Your task to perform on an android device: check battery use Image 0: 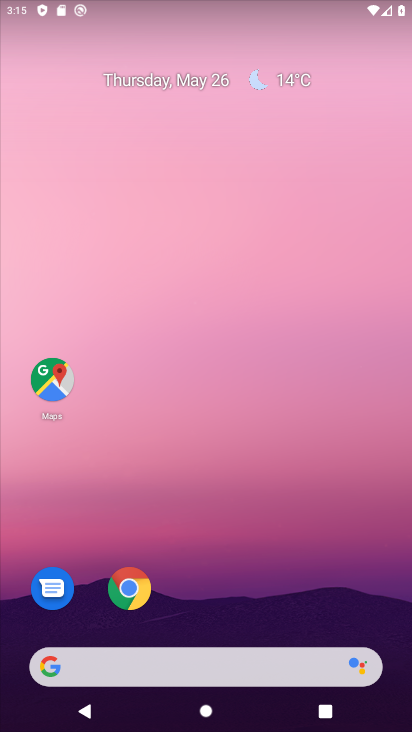
Step 0: drag from (302, 615) to (384, 65)
Your task to perform on an android device: check battery use Image 1: 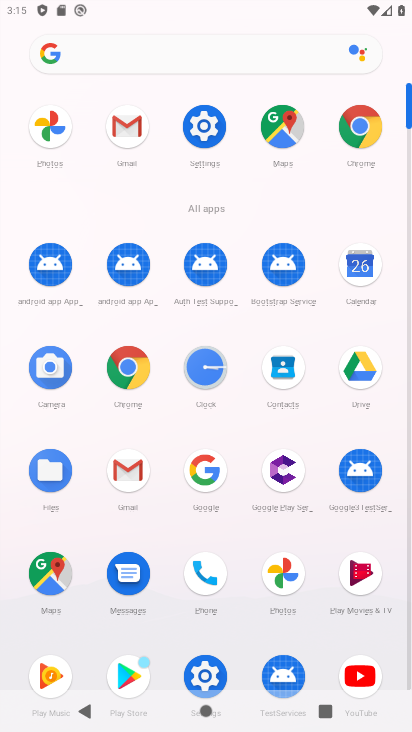
Step 1: click (199, 137)
Your task to perform on an android device: check battery use Image 2: 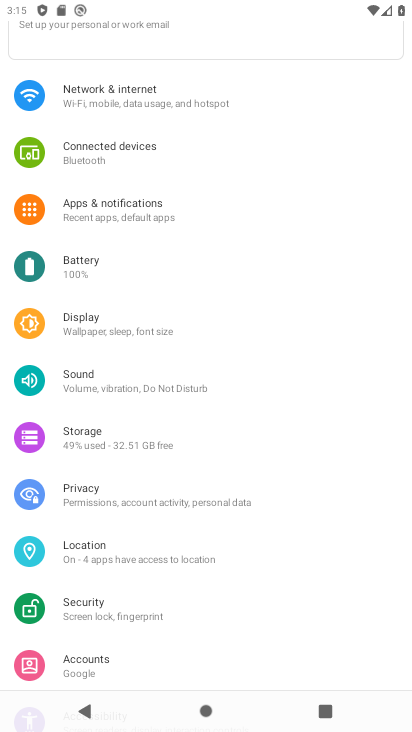
Step 2: click (140, 270)
Your task to perform on an android device: check battery use Image 3: 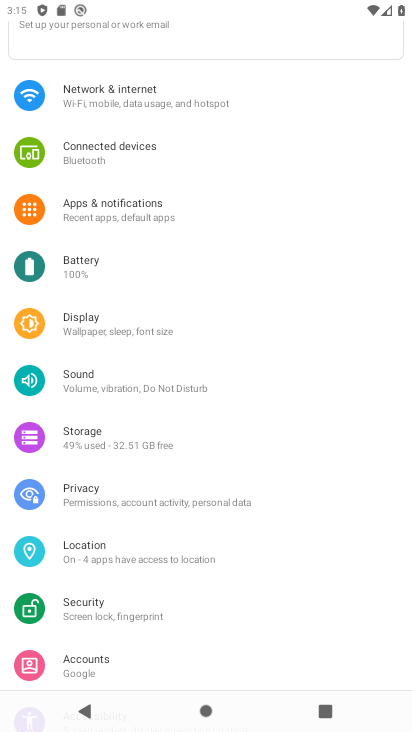
Step 3: task complete